Your task to perform on an android device: Add "acer predator" to the cart on walmart Image 0: 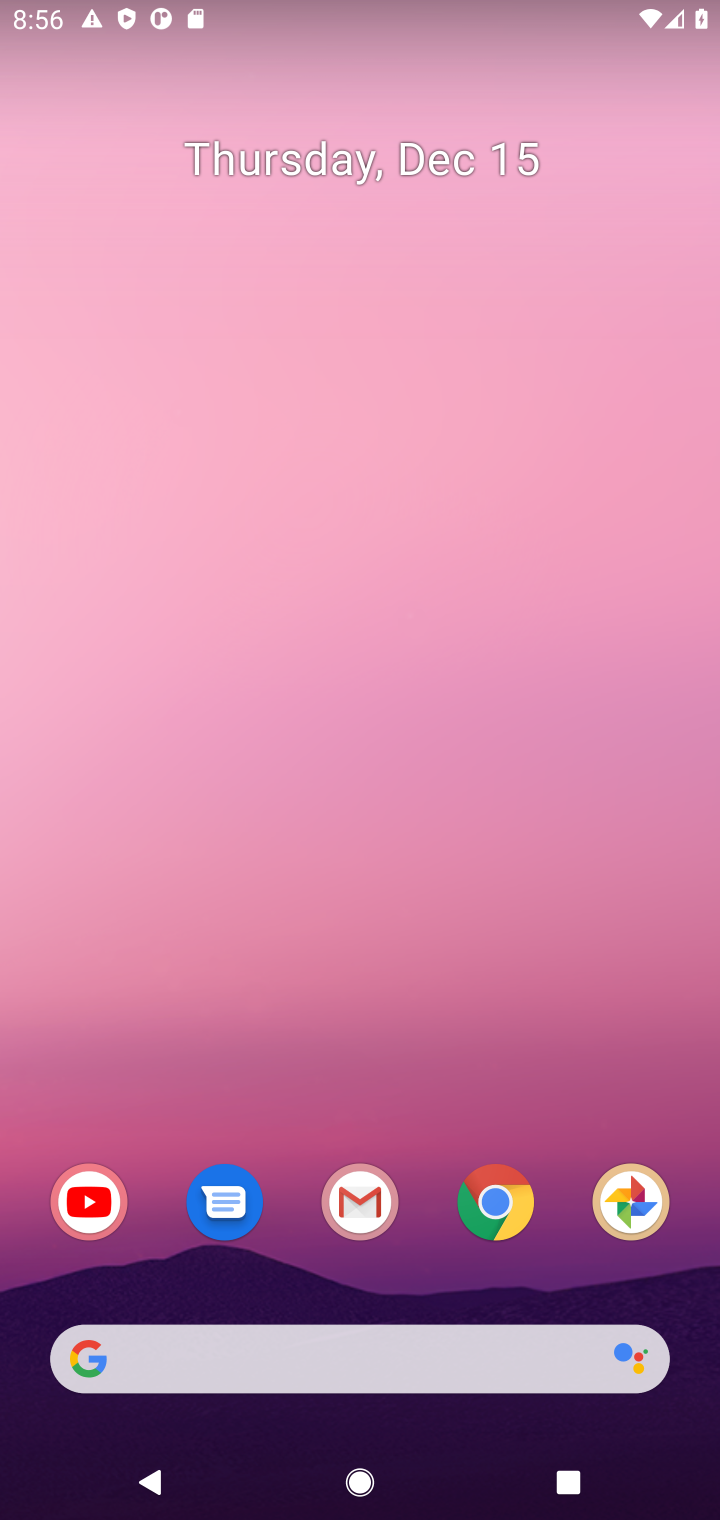
Step 0: click (504, 1202)
Your task to perform on an android device: Add "acer predator" to the cart on walmart Image 1: 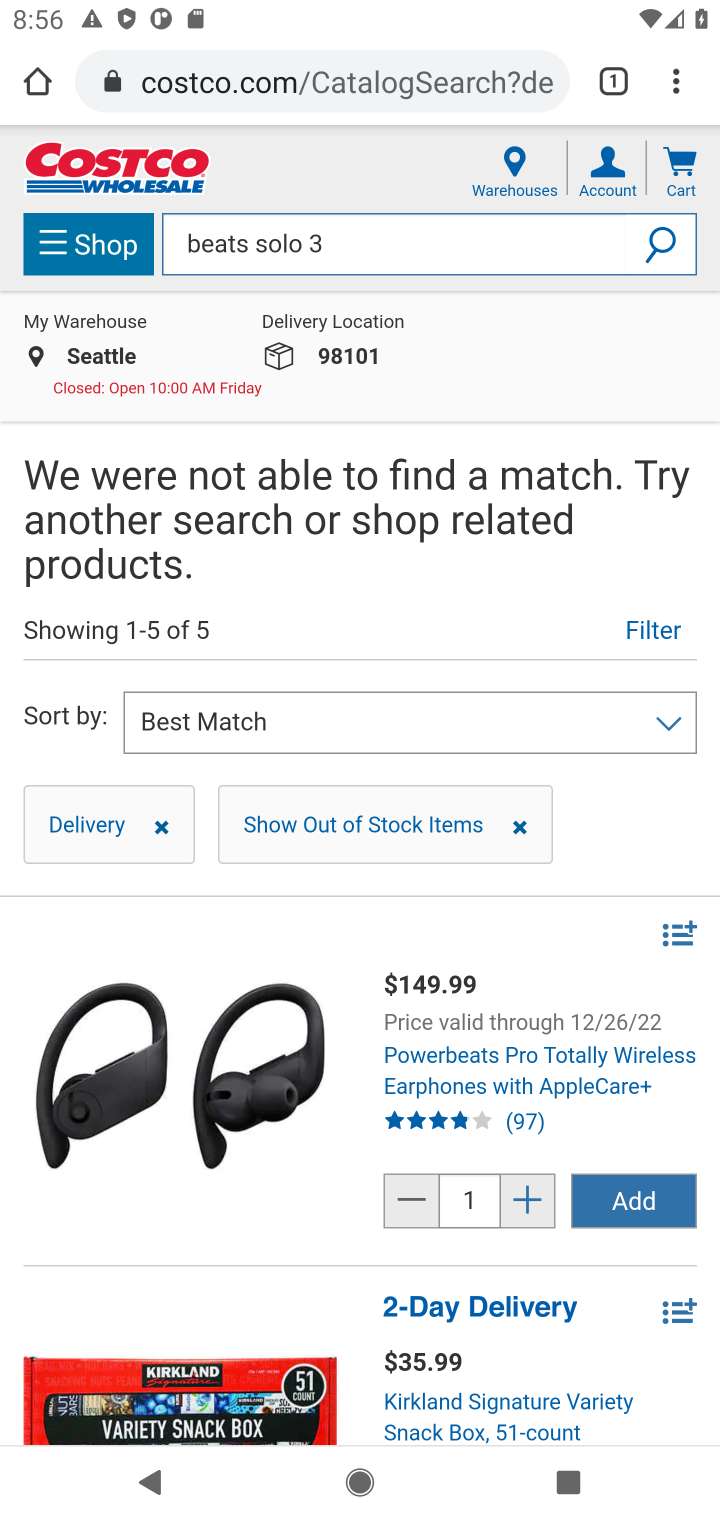
Step 1: click (225, 96)
Your task to perform on an android device: Add "acer predator" to the cart on walmart Image 2: 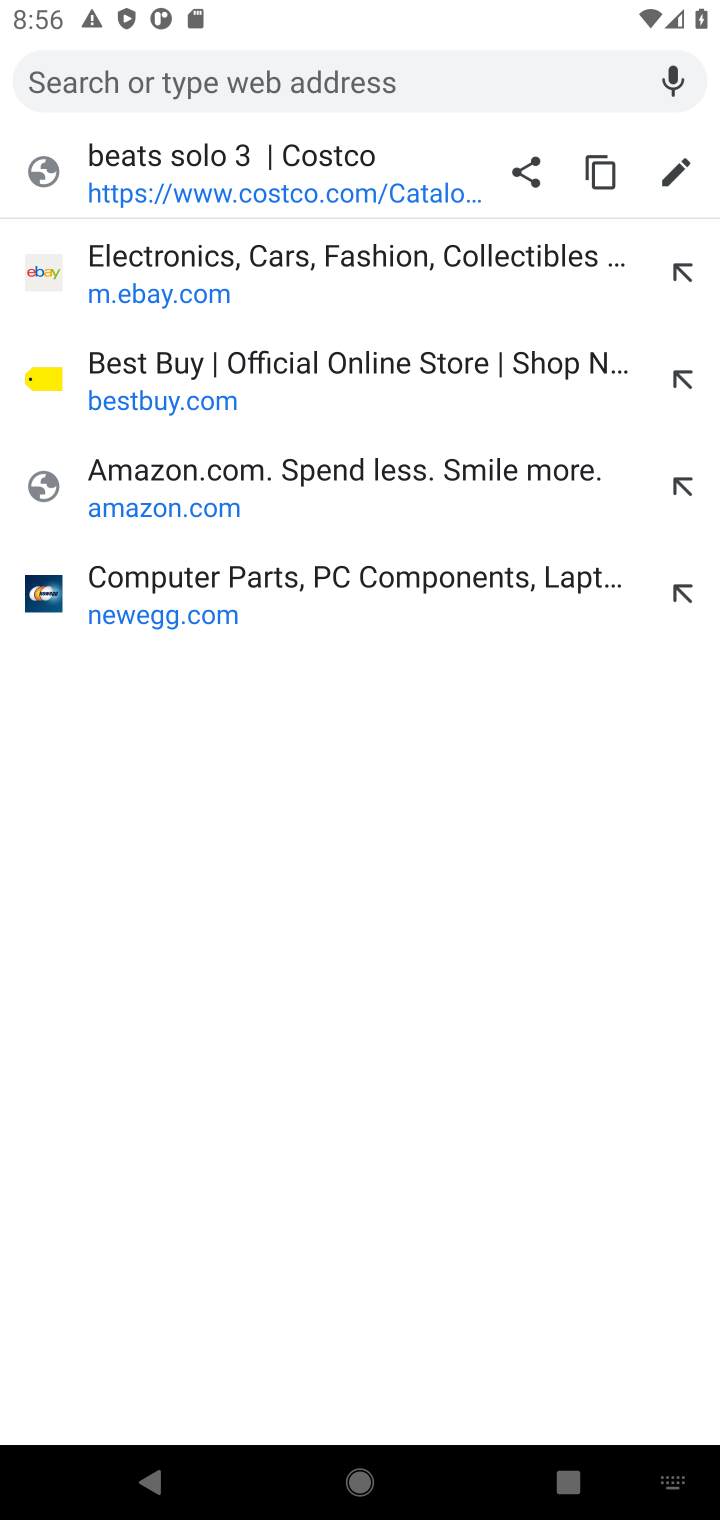
Step 2: type "walmart.com"
Your task to perform on an android device: Add "acer predator" to the cart on walmart Image 3: 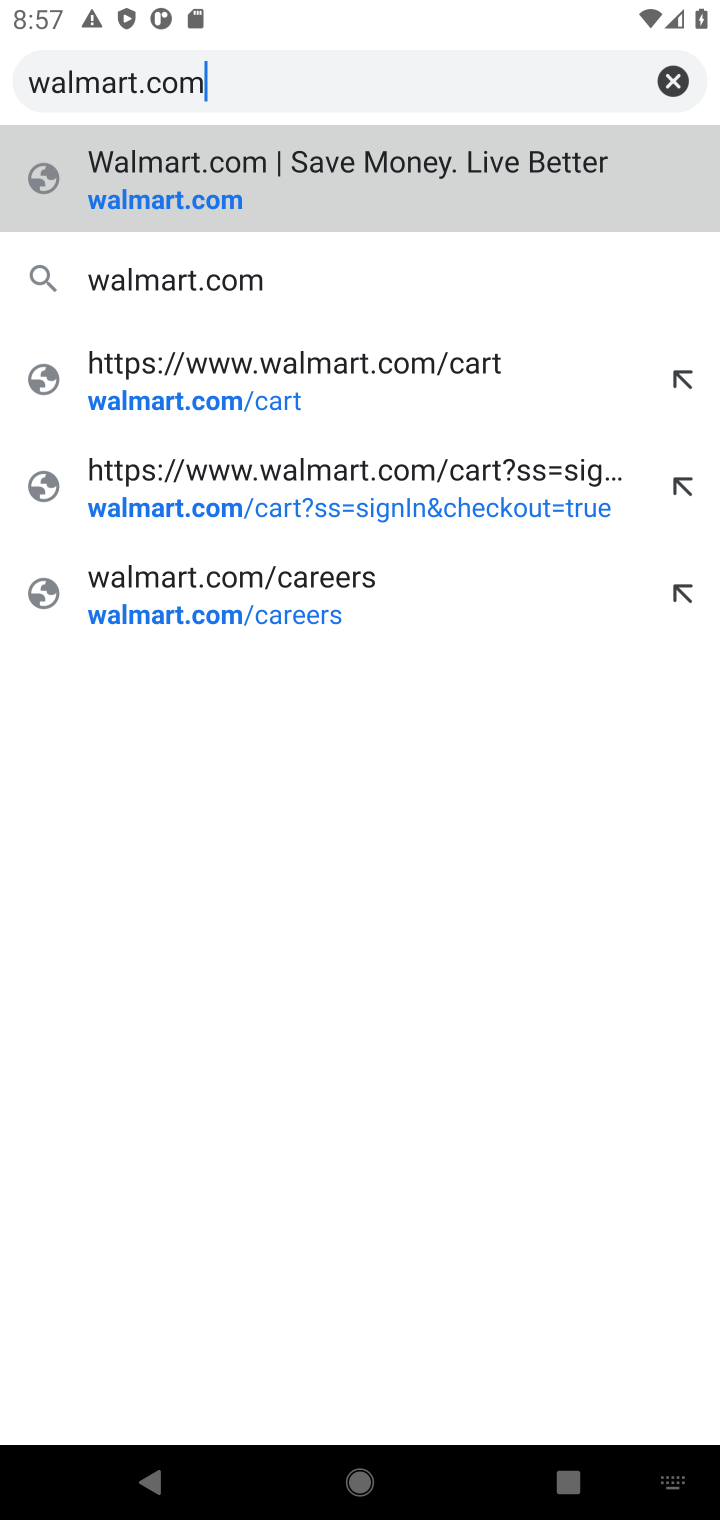
Step 3: click (199, 196)
Your task to perform on an android device: Add "acer predator" to the cart on walmart Image 4: 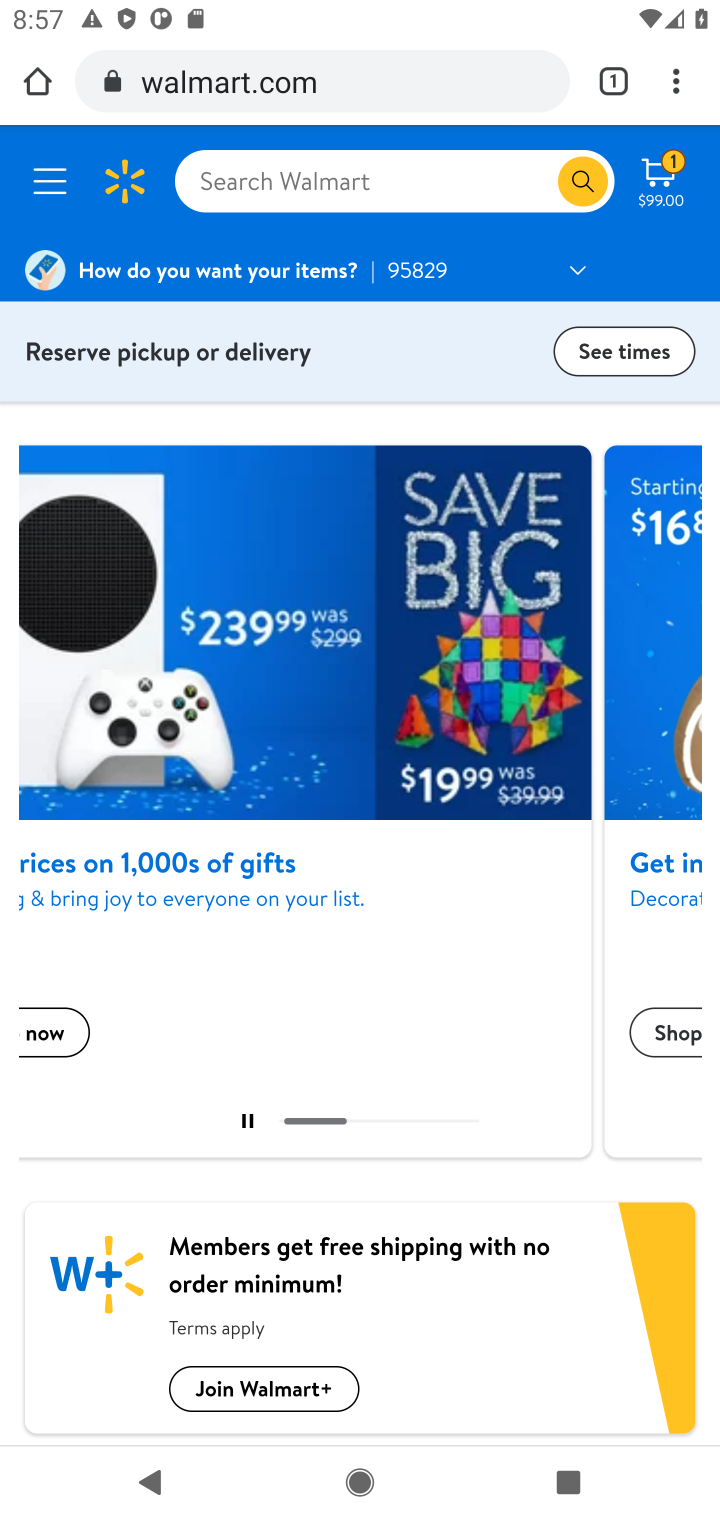
Step 4: click (314, 183)
Your task to perform on an android device: Add "acer predator" to the cart on walmart Image 5: 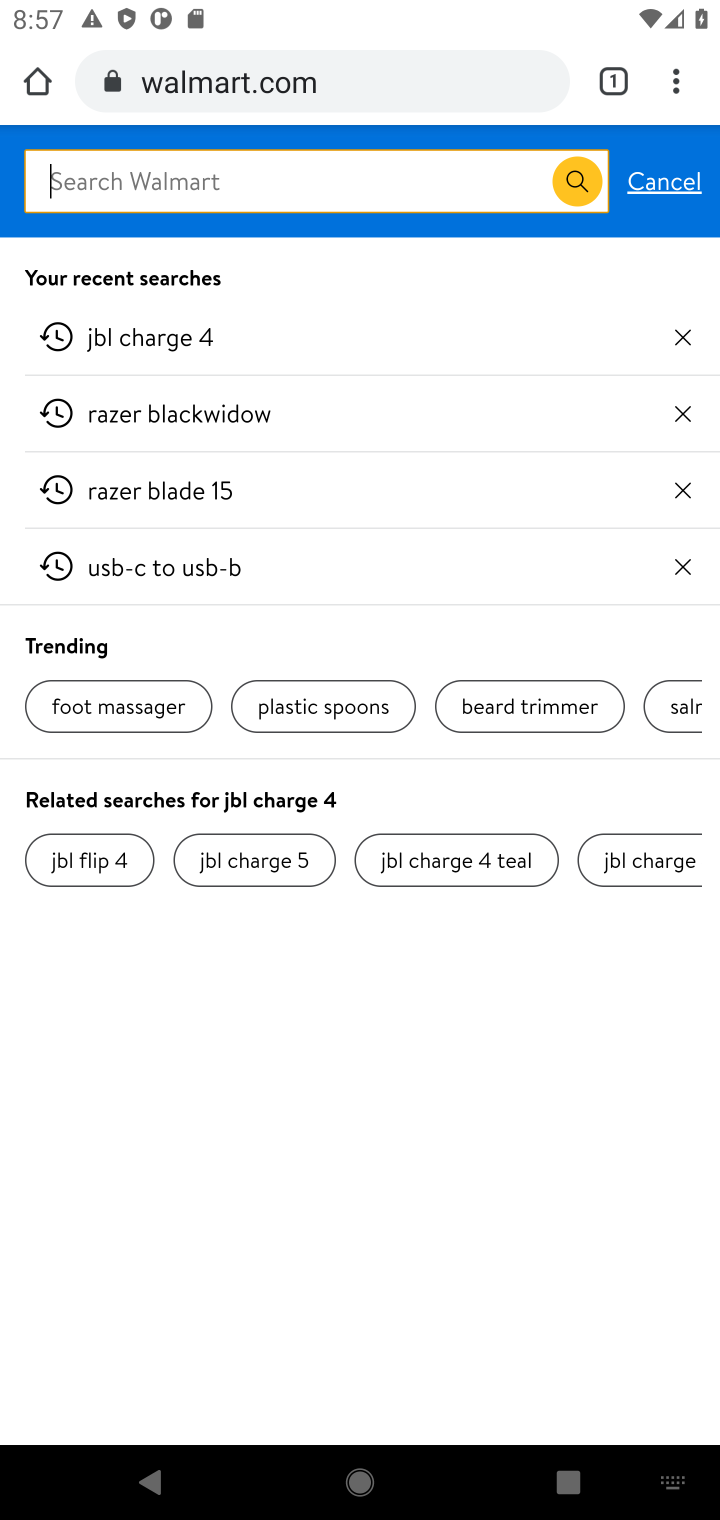
Step 5: type "acer predator"
Your task to perform on an android device: Add "acer predator" to the cart on walmart Image 6: 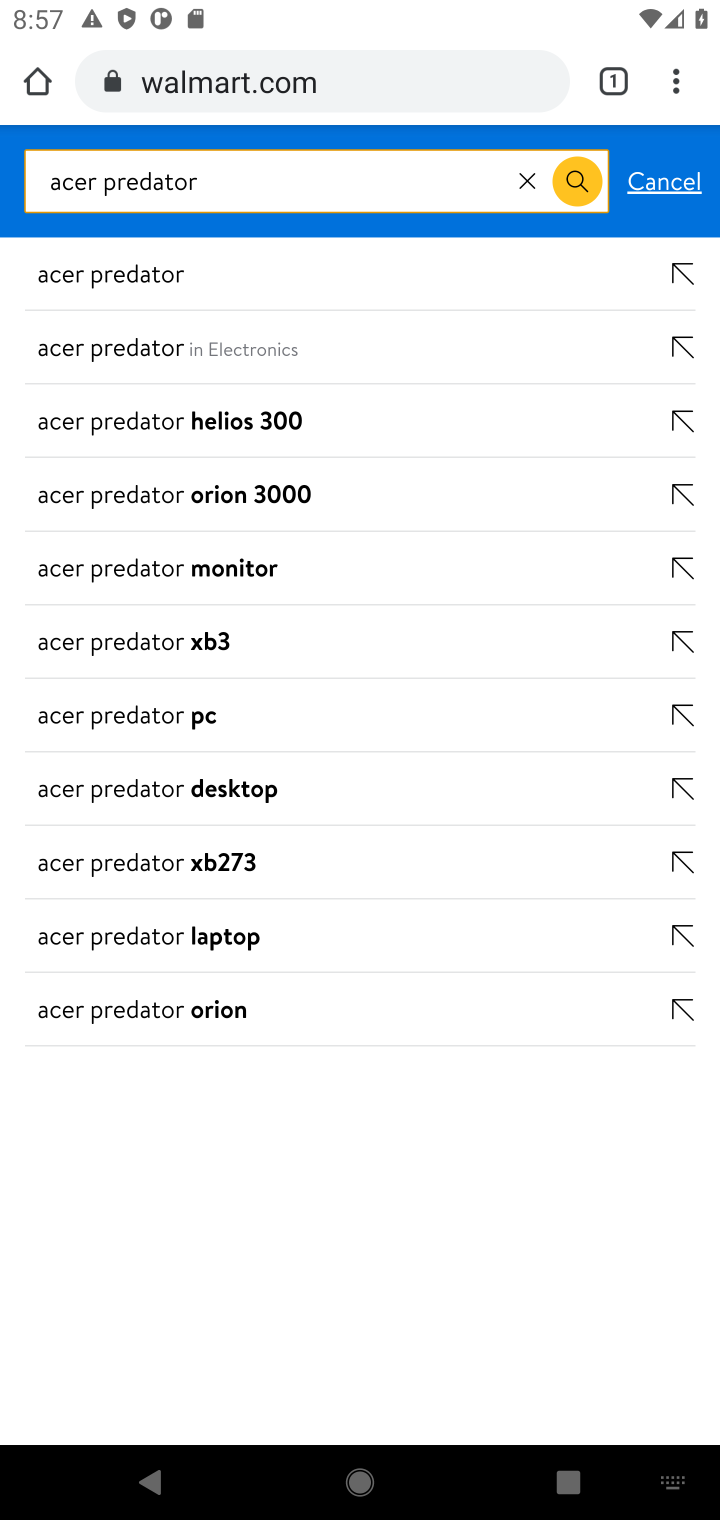
Step 6: click (86, 284)
Your task to perform on an android device: Add "acer predator" to the cart on walmart Image 7: 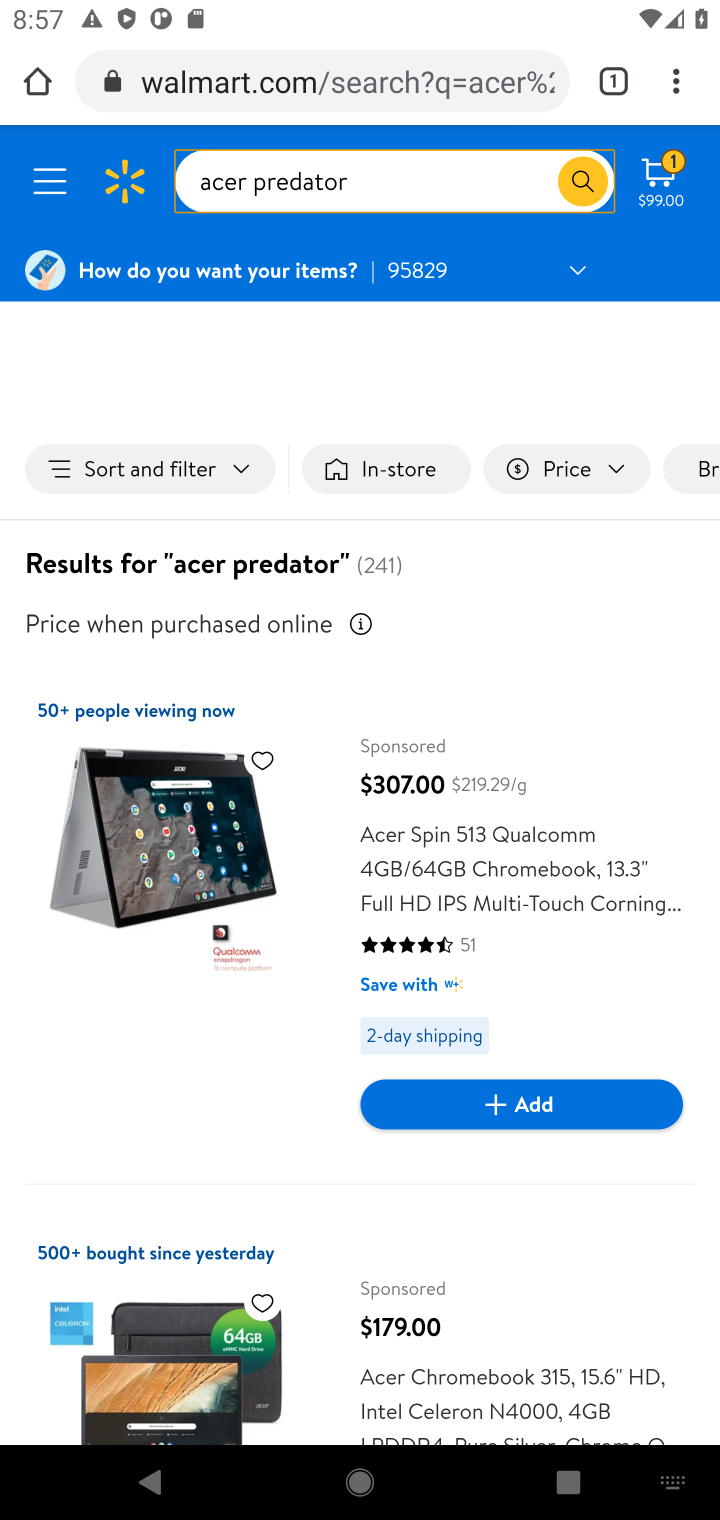
Step 7: drag from (309, 1010) to (301, 534)
Your task to perform on an android device: Add "acer predator" to the cart on walmart Image 8: 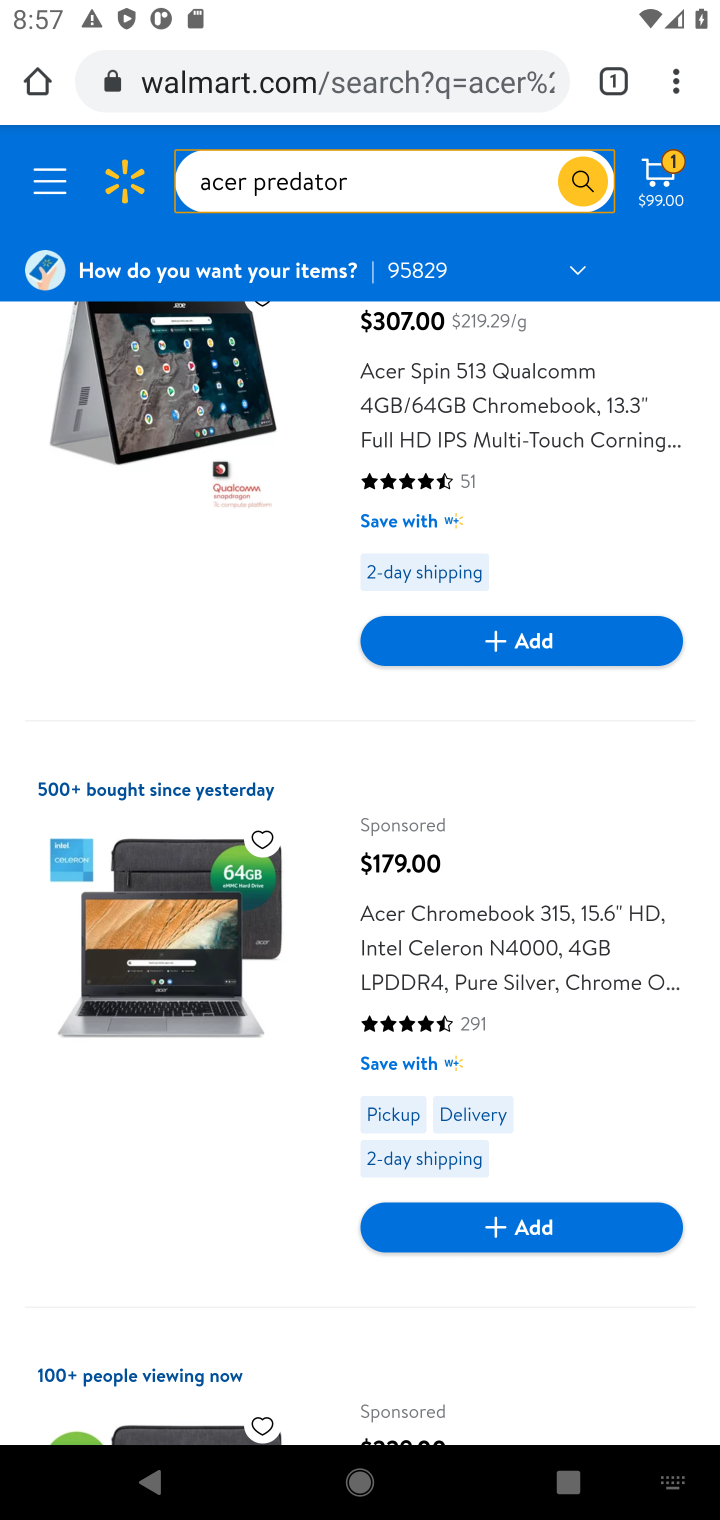
Step 8: drag from (269, 1082) to (234, 498)
Your task to perform on an android device: Add "acer predator" to the cart on walmart Image 9: 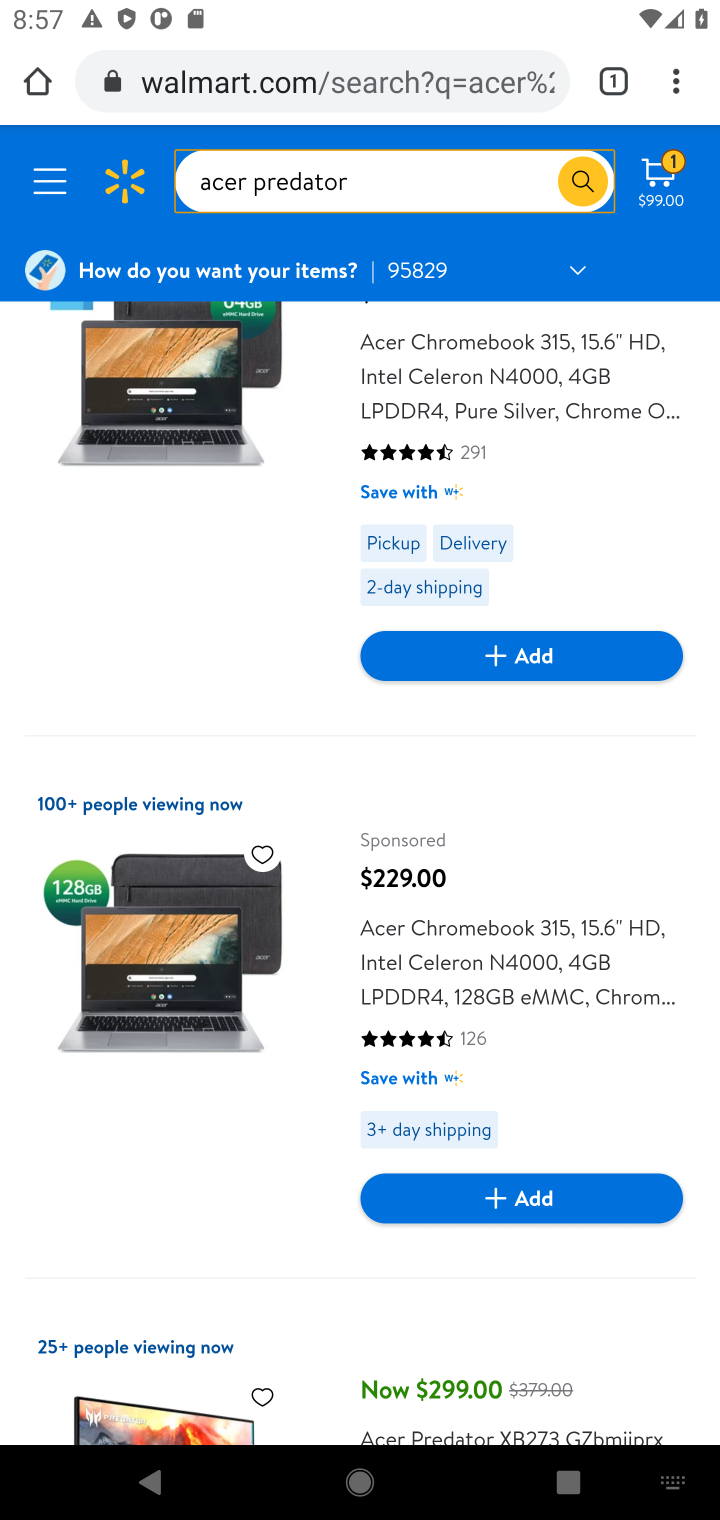
Step 9: drag from (271, 924) to (277, 542)
Your task to perform on an android device: Add "acer predator" to the cart on walmart Image 10: 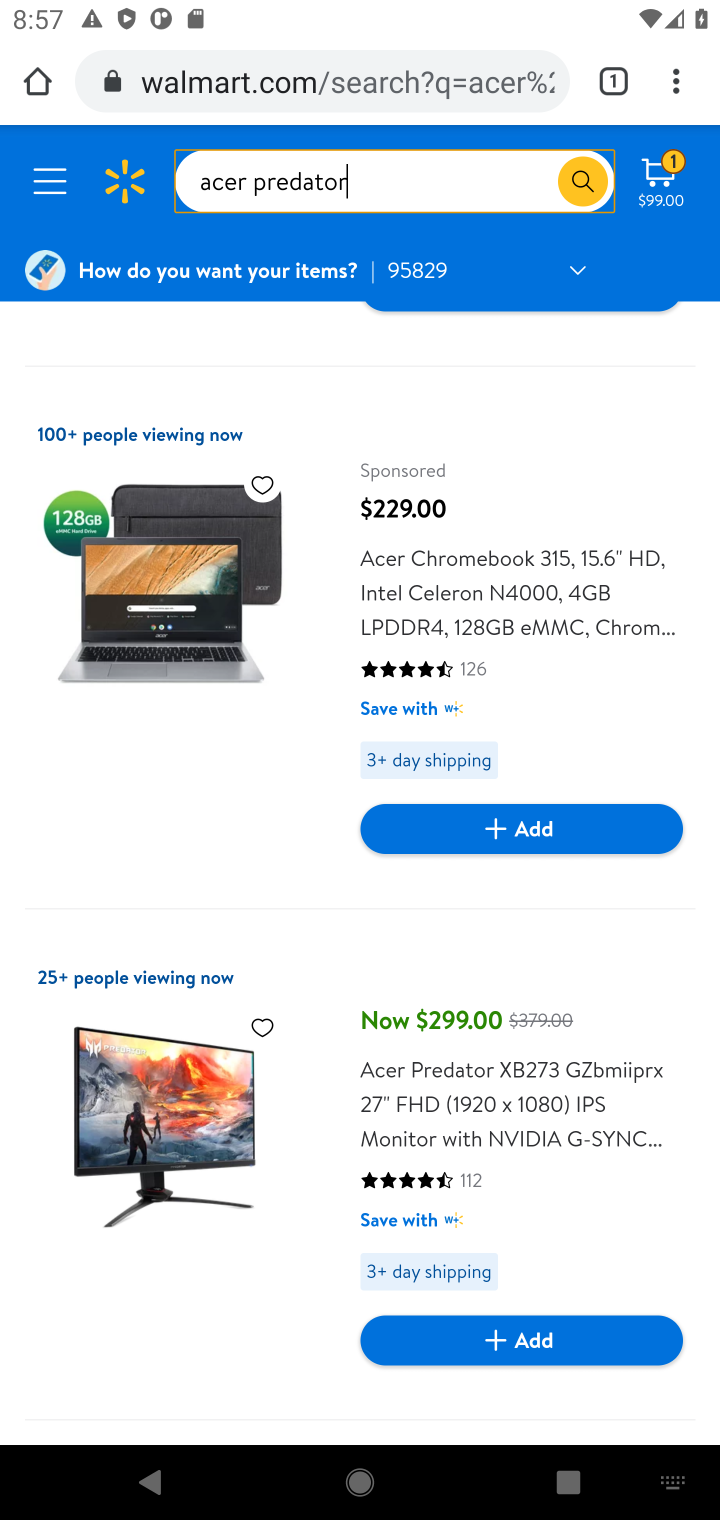
Step 10: click (488, 1344)
Your task to perform on an android device: Add "acer predator" to the cart on walmart Image 11: 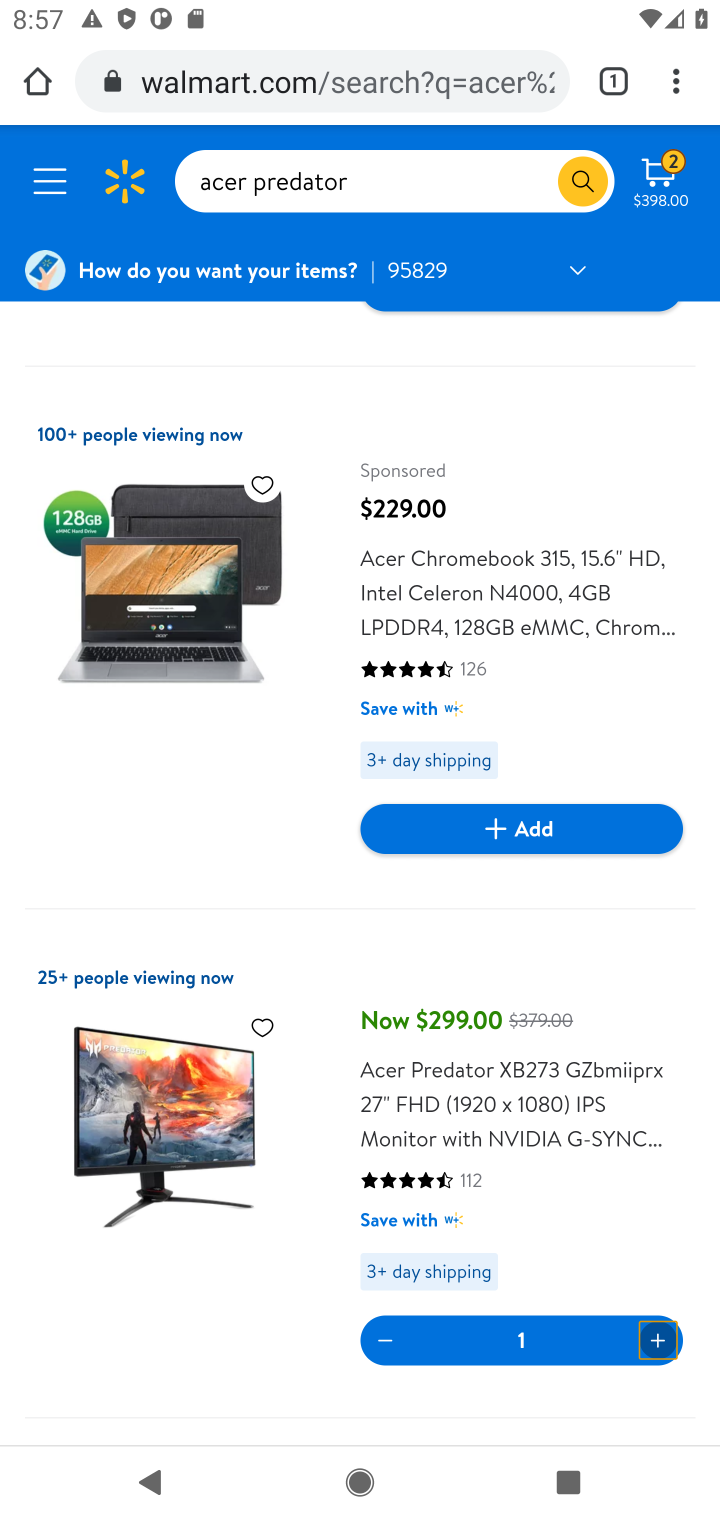
Step 11: task complete